Your task to perform on an android device: turn vacation reply on in the gmail app Image 0: 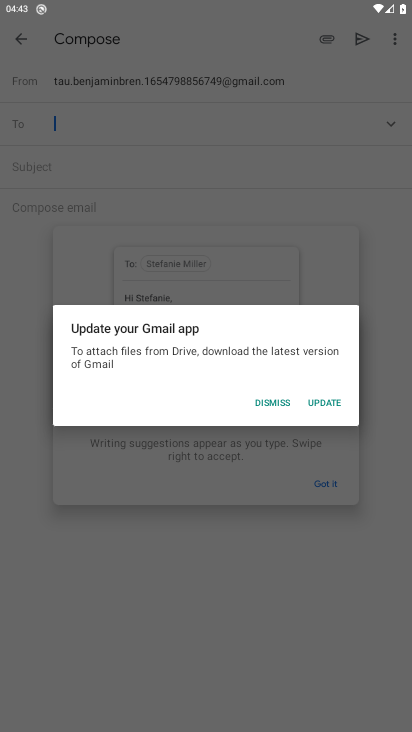
Step 0: press home button
Your task to perform on an android device: turn vacation reply on in the gmail app Image 1: 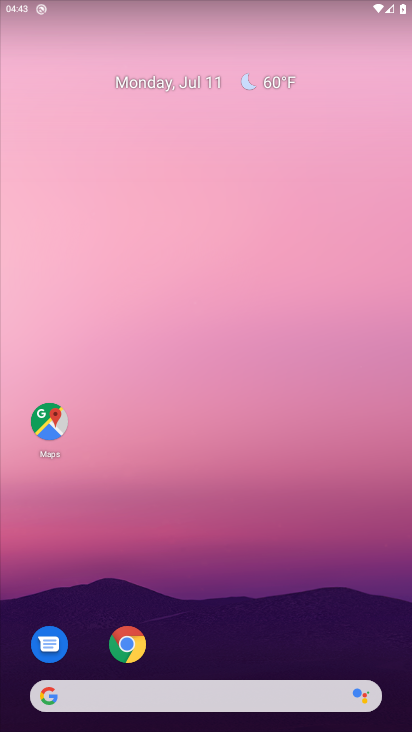
Step 1: click (311, 226)
Your task to perform on an android device: turn vacation reply on in the gmail app Image 2: 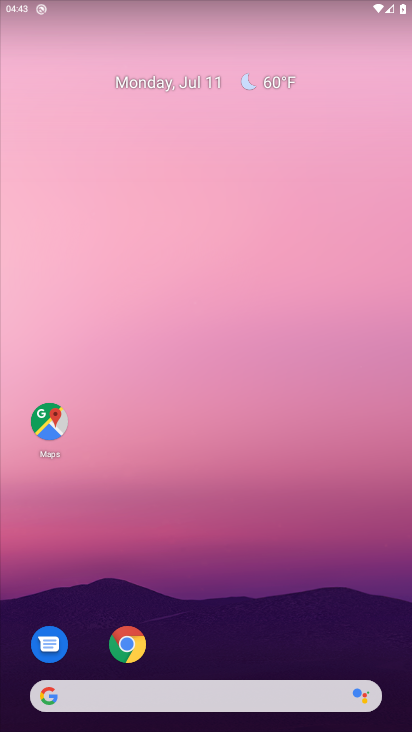
Step 2: drag from (187, 682) to (264, 193)
Your task to perform on an android device: turn vacation reply on in the gmail app Image 3: 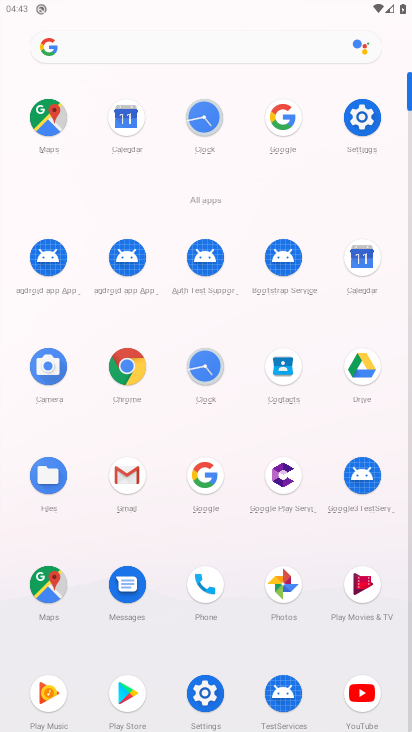
Step 3: click (130, 476)
Your task to perform on an android device: turn vacation reply on in the gmail app Image 4: 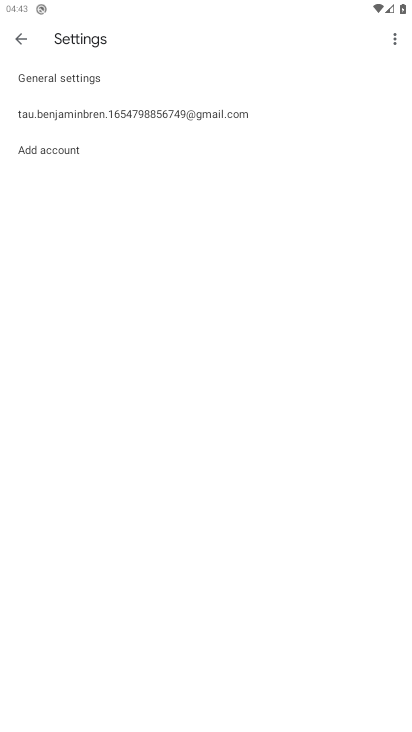
Step 4: click (67, 122)
Your task to perform on an android device: turn vacation reply on in the gmail app Image 5: 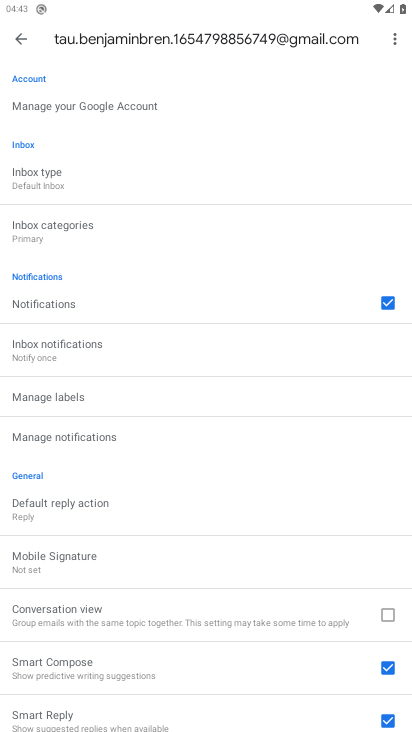
Step 5: drag from (103, 683) to (118, 380)
Your task to perform on an android device: turn vacation reply on in the gmail app Image 6: 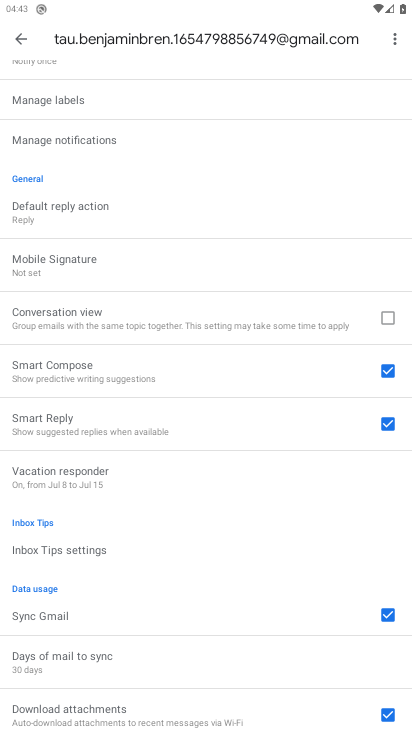
Step 6: click (34, 490)
Your task to perform on an android device: turn vacation reply on in the gmail app Image 7: 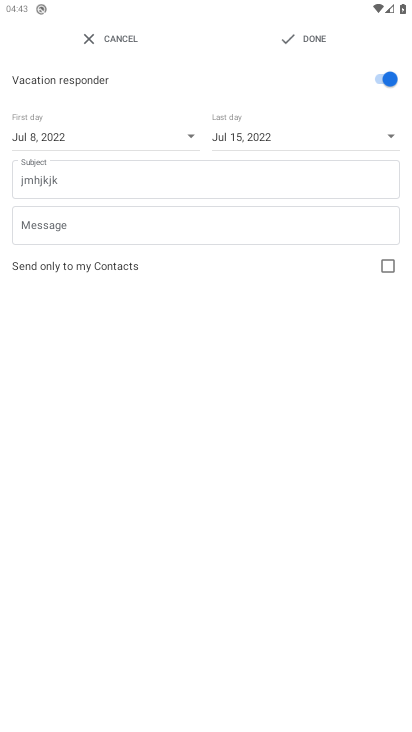
Step 7: click (302, 35)
Your task to perform on an android device: turn vacation reply on in the gmail app Image 8: 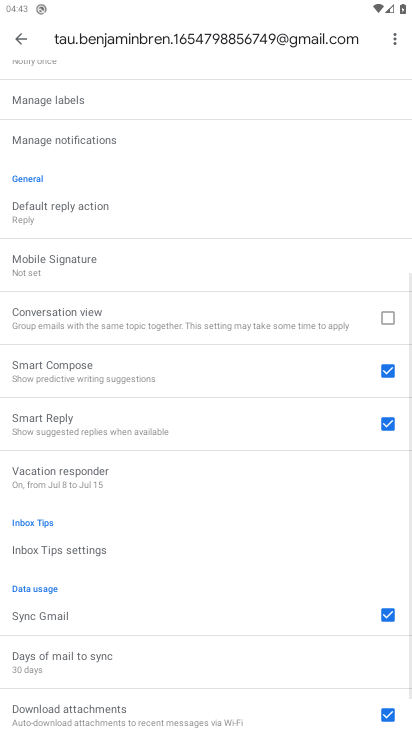
Step 8: task complete